Your task to perform on an android device: toggle wifi Image 0: 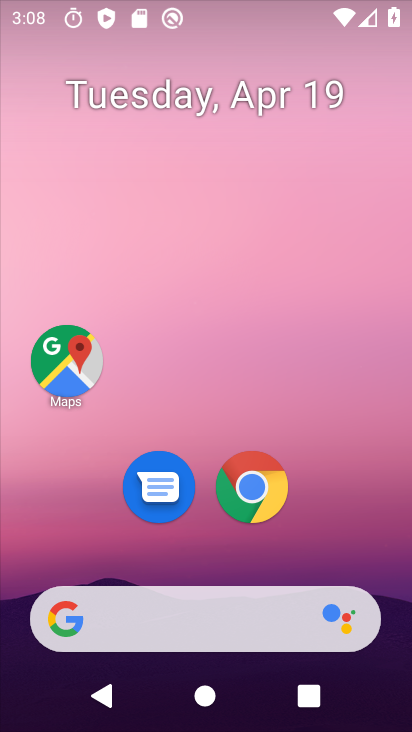
Step 0: drag from (210, 551) to (261, 68)
Your task to perform on an android device: toggle wifi Image 1: 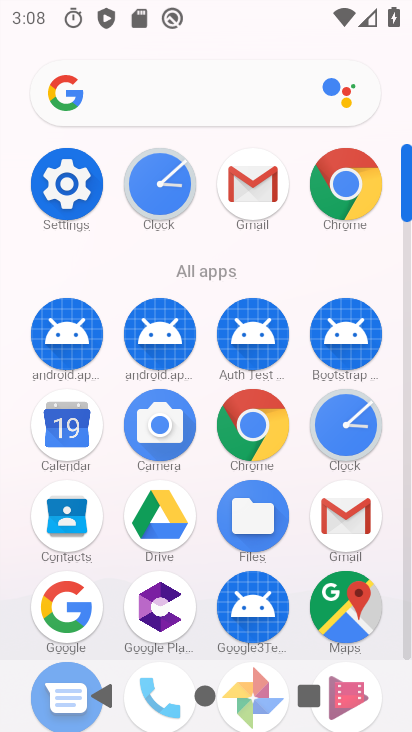
Step 1: drag from (107, 14) to (153, 640)
Your task to perform on an android device: toggle wifi Image 2: 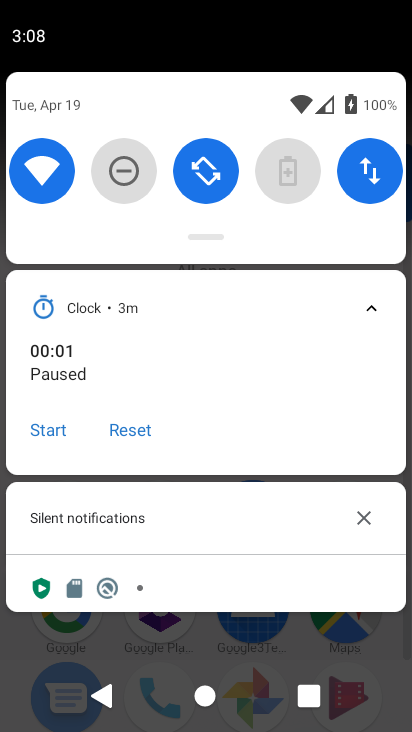
Step 2: click (49, 181)
Your task to perform on an android device: toggle wifi Image 3: 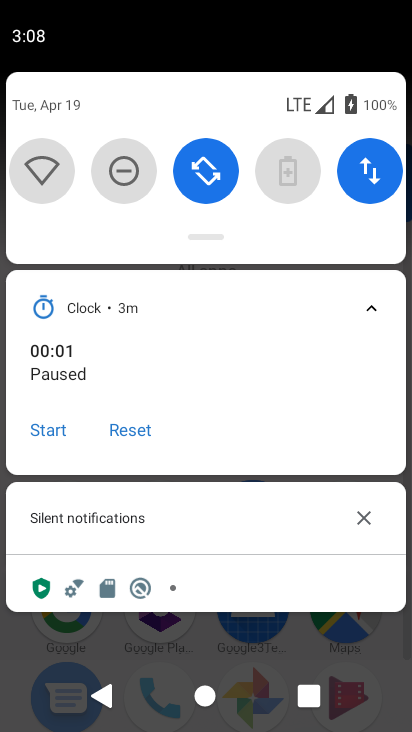
Step 3: task complete